Your task to perform on an android device: uninstall "DoorDash - Dasher" Image 0: 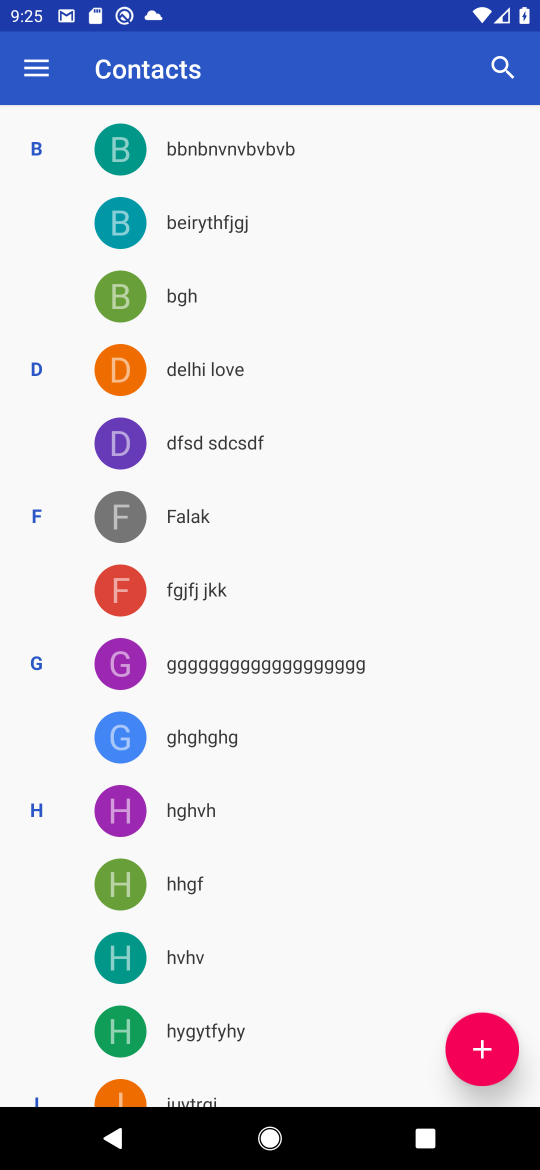
Step 0: press home button
Your task to perform on an android device: uninstall "DoorDash - Dasher" Image 1: 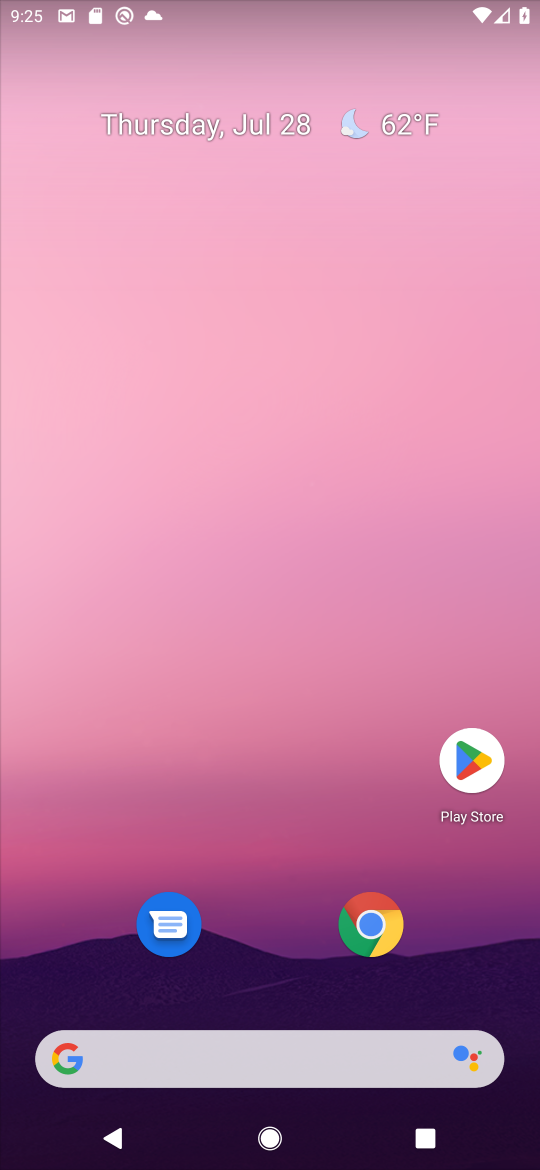
Step 1: click (481, 762)
Your task to perform on an android device: uninstall "DoorDash - Dasher" Image 2: 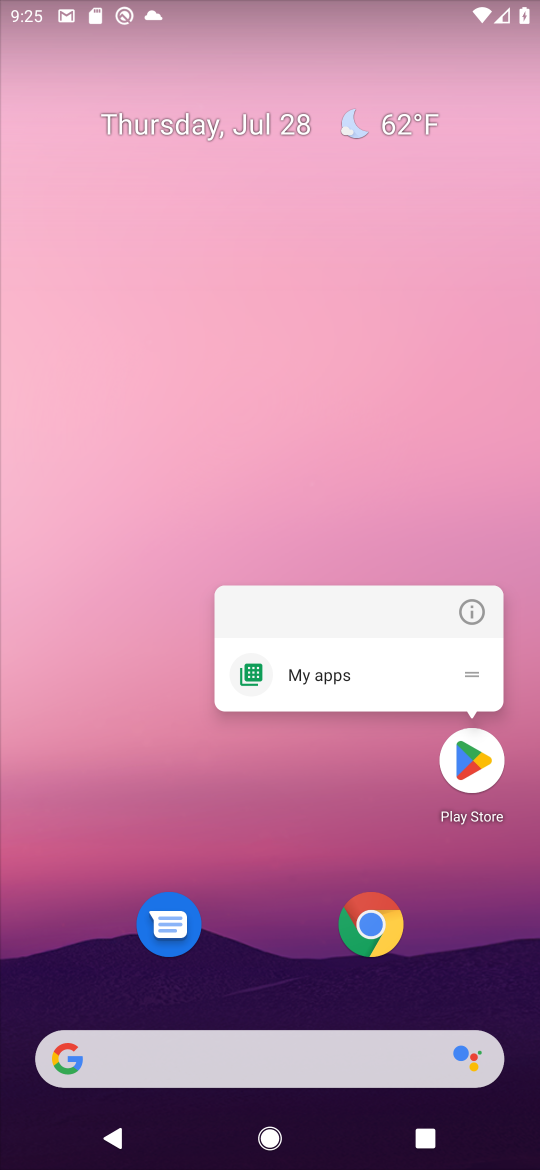
Step 2: click (476, 762)
Your task to perform on an android device: uninstall "DoorDash - Dasher" Image 3: 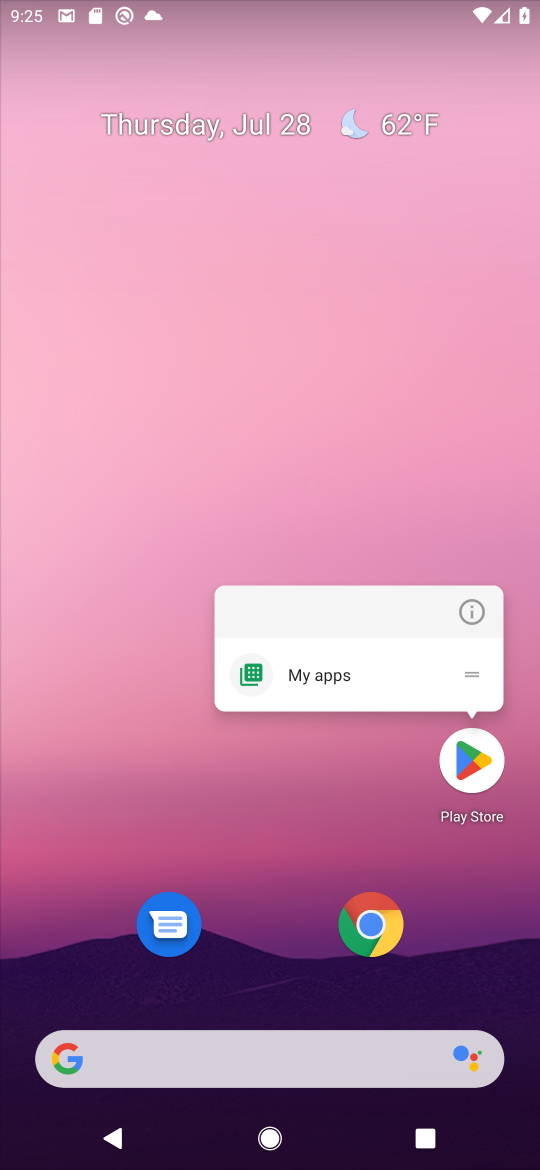
Step 3: click (476, 767)
Your task to perform on an android device: uninstall "DoorDash - Dasher" Image 4: 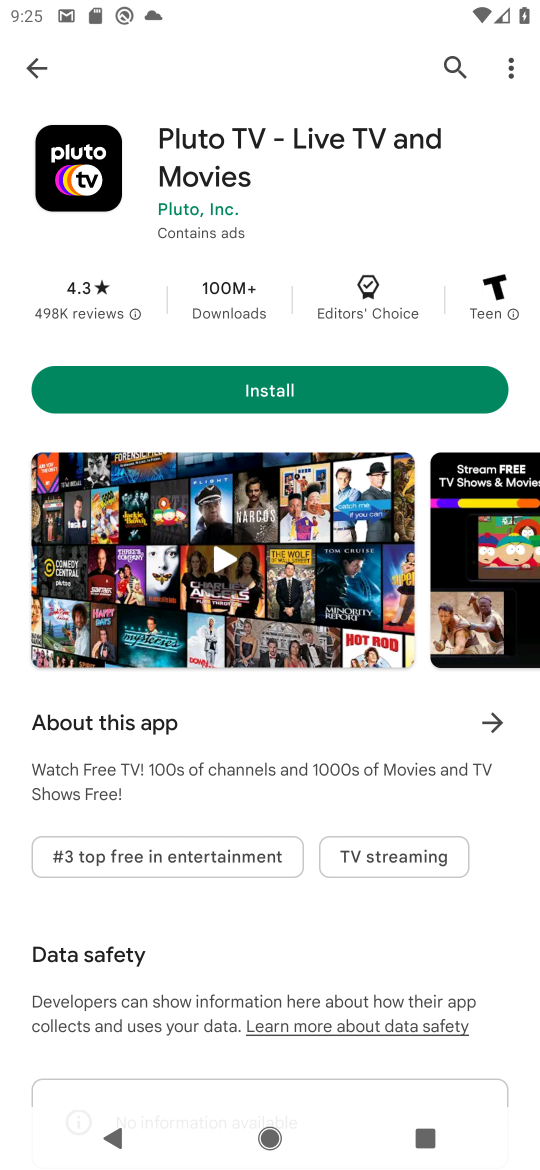
Step 4: click (36, 61)
Your task to perform on an android device: uninstall "DoorDash - Dasher" Image 5: 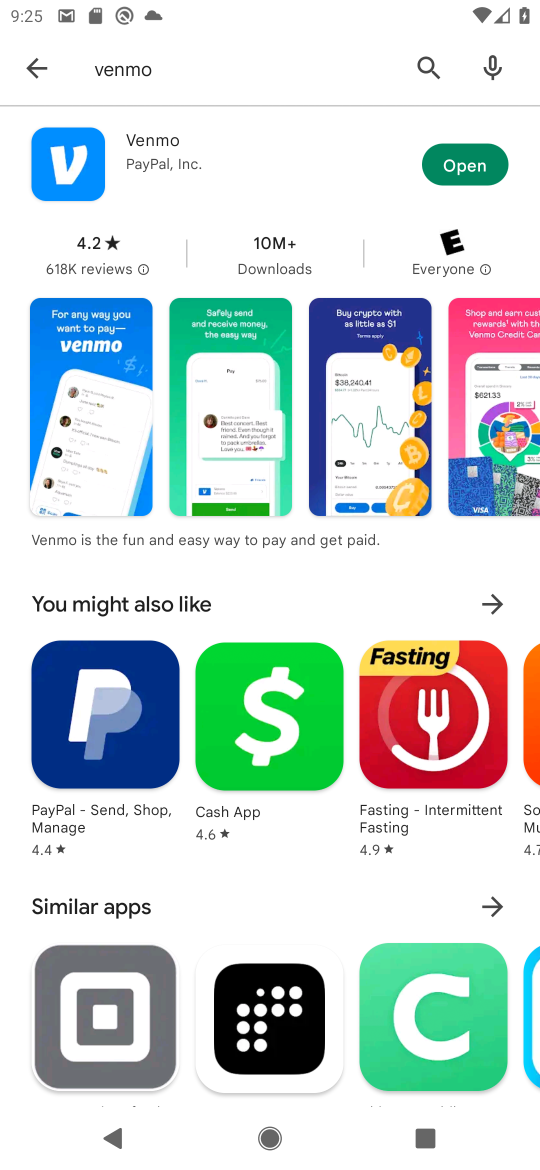
Step 5: click (414, 63)
Your task to perform on an android device: uninstall "DoorDash - Dasher" Image 6: 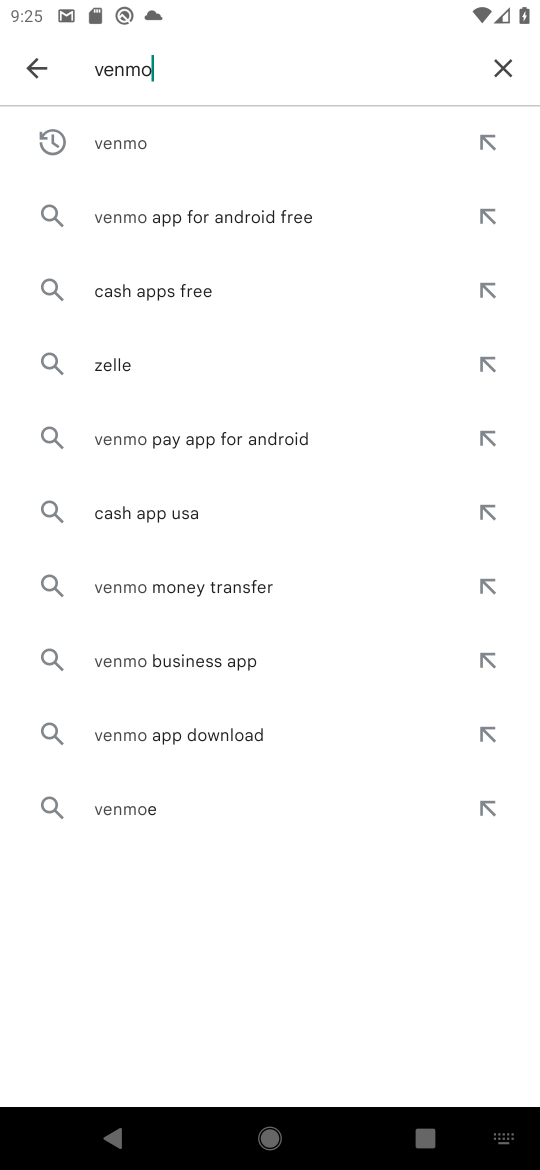
Step 6: type "DoorDash - Dasher"
Your task to perform on an android device: uninstall "DoorDash - Dasher" Image 7: 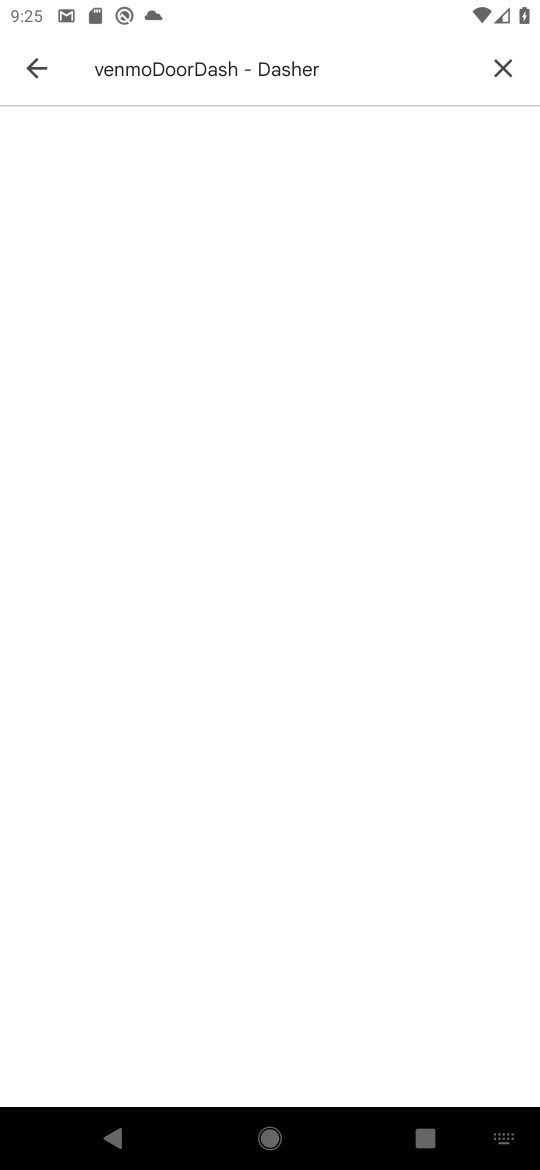
Step 7: click (316, 61)
Your task to perform on an android device: uninstall "DoorDash - Dasher" Image 8: 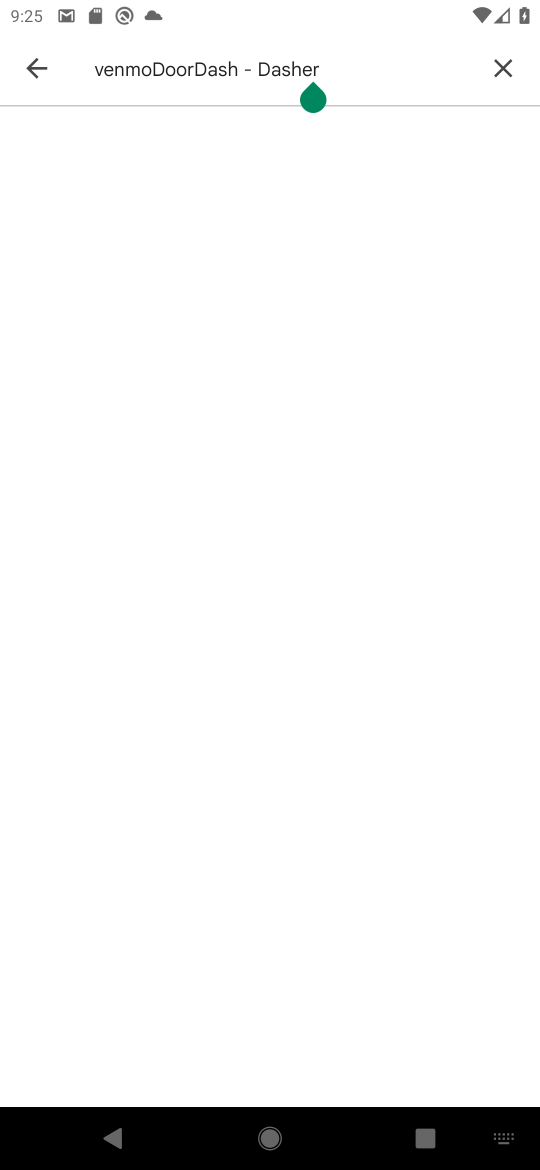
Step 8: click (507, 60)
Your task to perform on an android device: uninstall "DoorDash - Dasher" Image 9: 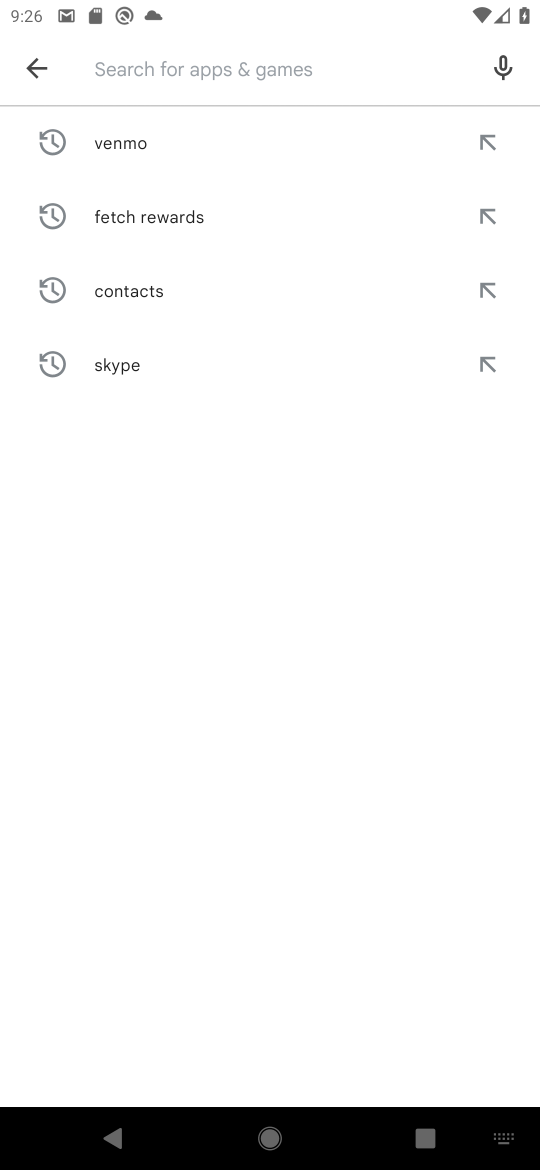
Step 9: type "DoorDash - Dasher"
Your task to perform on an android device: uninstall "DoorDash - Dasher" Image 10: 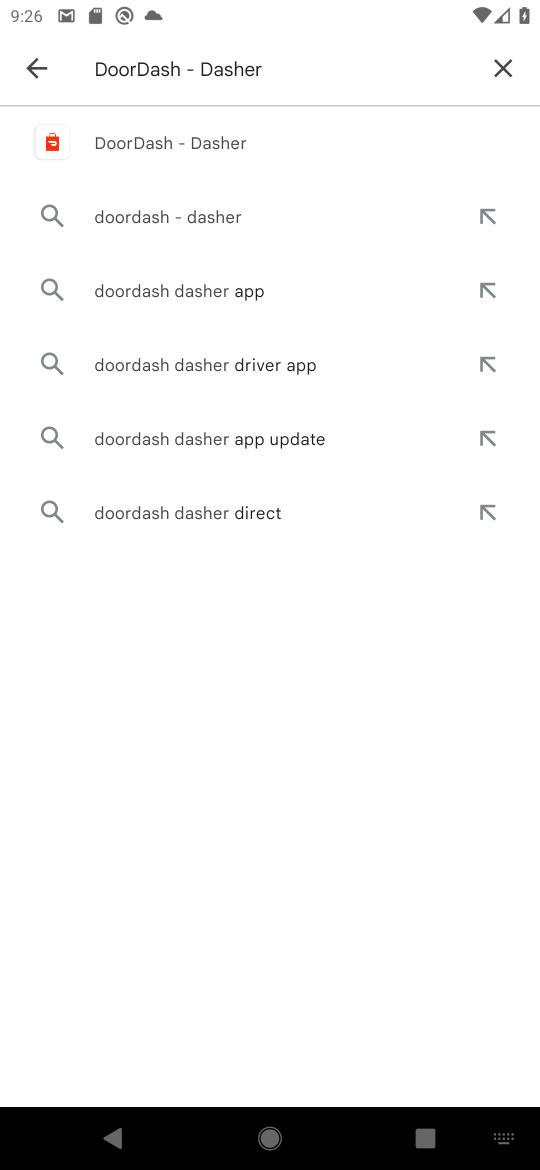
Step 10: click (186, 142)
Your task to perform on an android device: uninstall "DoorDash - Dasher" Image 11: 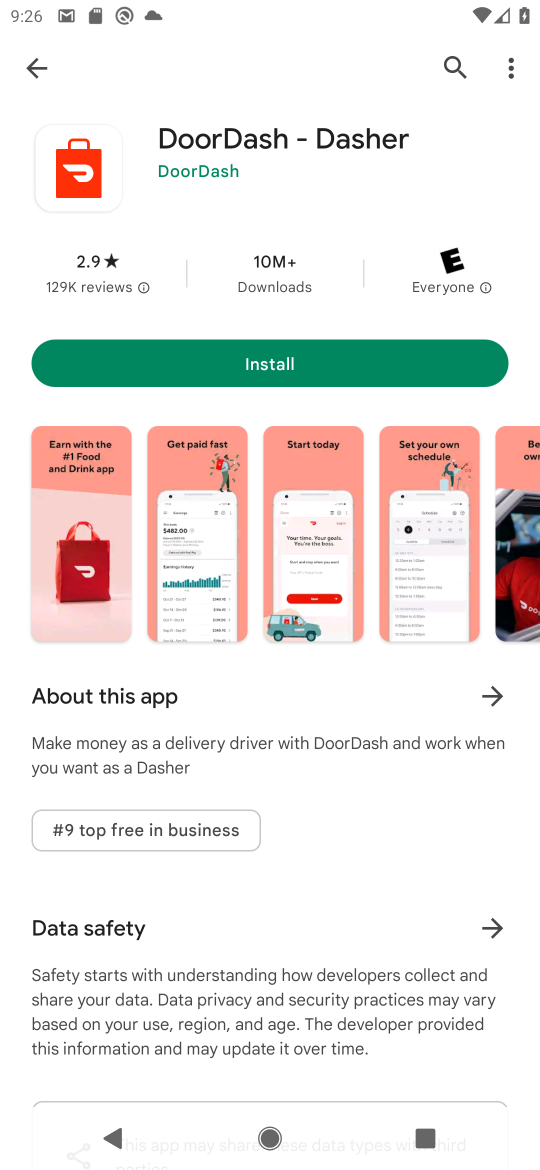
Step 11: task complete